Your task to perform on an android device: Search for the new Nike Air Max 270 on Nike.com Image 0: 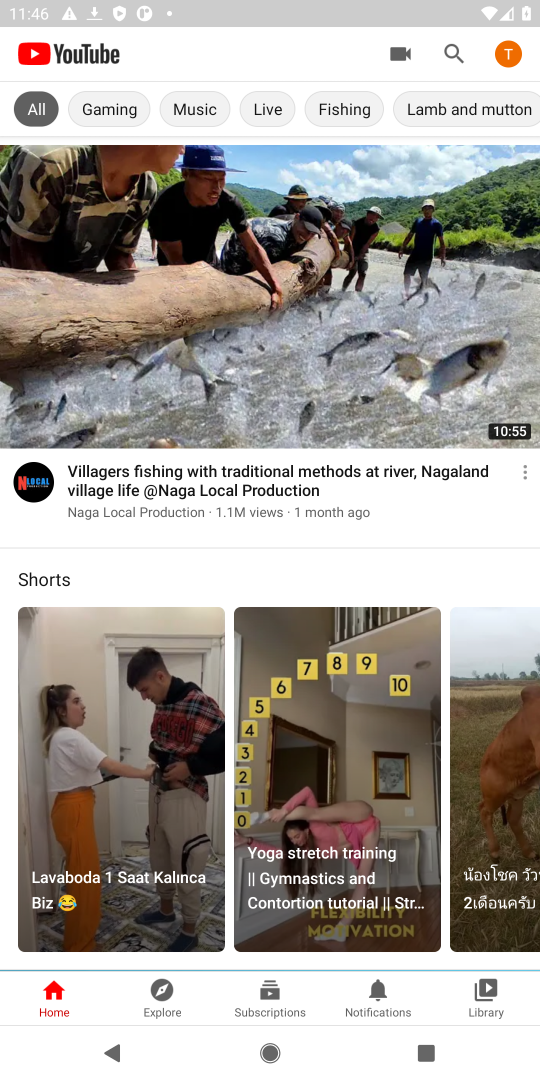
Step 0: press home button
Your task to perform on an android device: Search for the new Nike Air Max 270 on Nike.com Image 1: 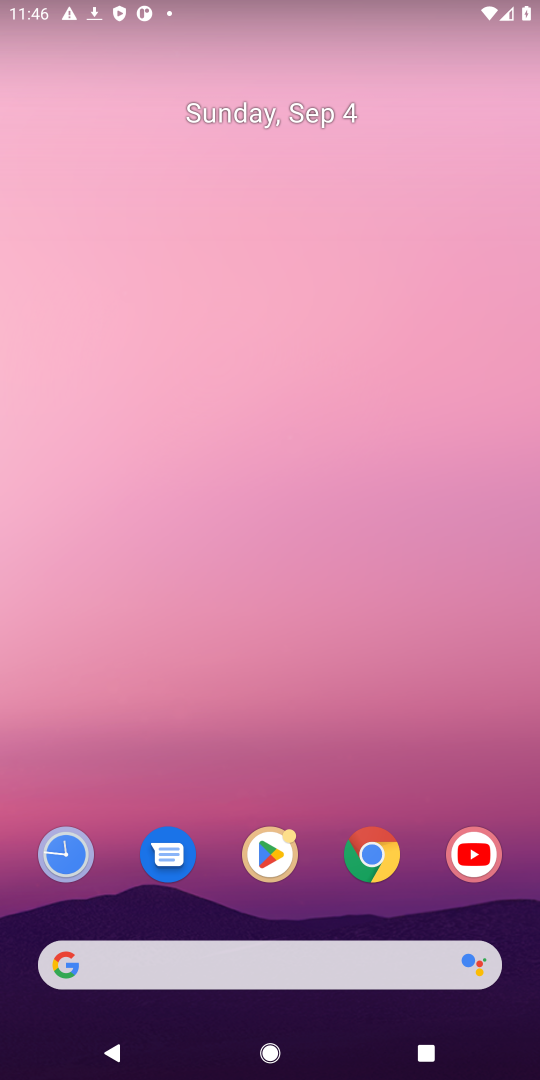
Step 1: click (240, 963)
Your task to perform on an android device: Search for the new Nike Air Max 270 on Nike.com Image 2: 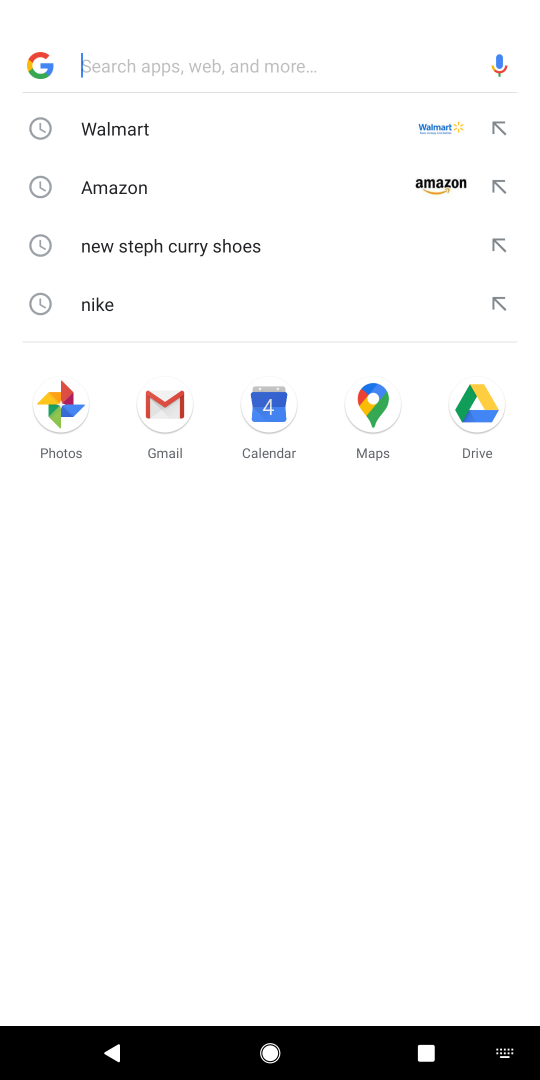
Step 2: type "nike.com"
Your task to perform on an android device: Search for the new Nike Air Max 270 on Nike.com Image 3: 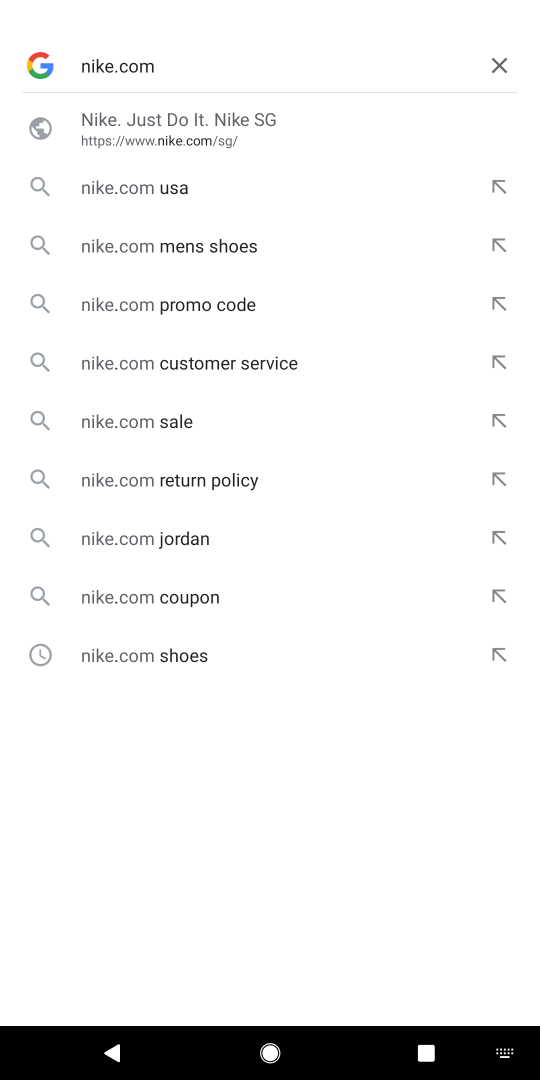
Step 3: press enter
Your task to perform on an android device: Search for the new Nike Air Max 270 on Nike.com Image 4: 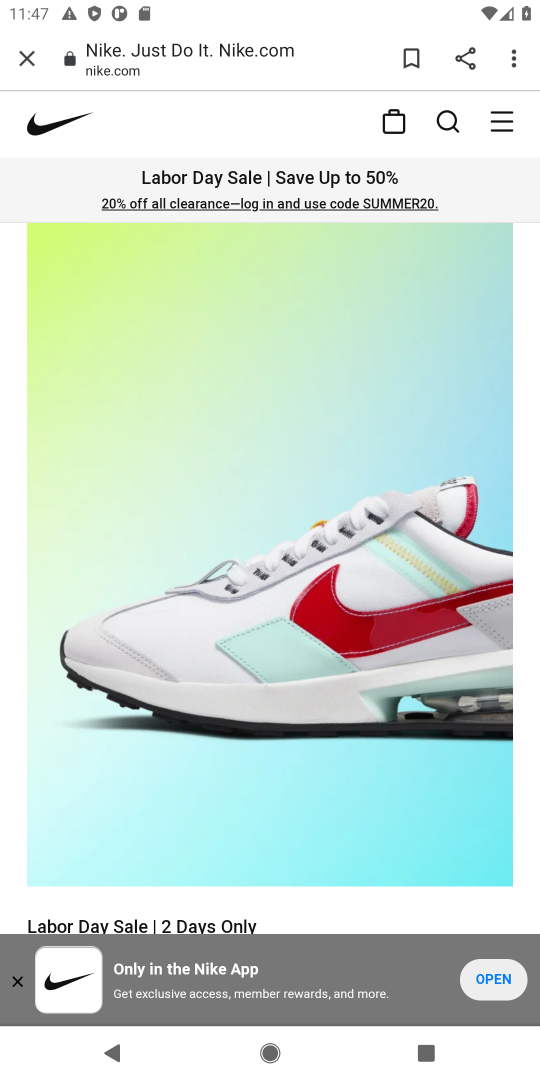
Step 4: click (454, 121)
Your task to perform on an android device: Search for the new Nike Air Max 270 on Nike.com Image 5: 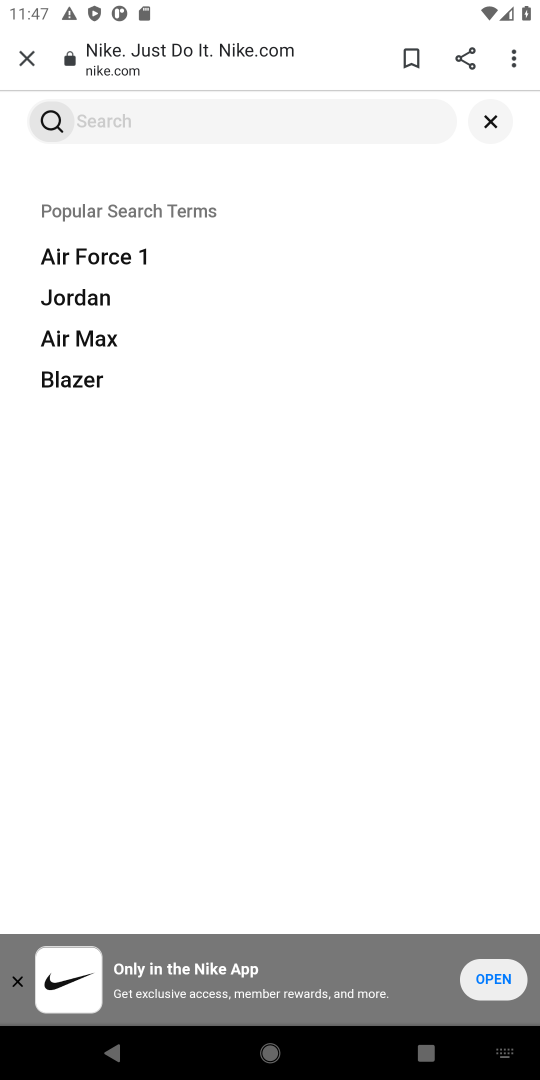
Step 5: press enter
Your task to perform on an android device: Search for the new Nike Air Max 270 on Nike.com Image 6: 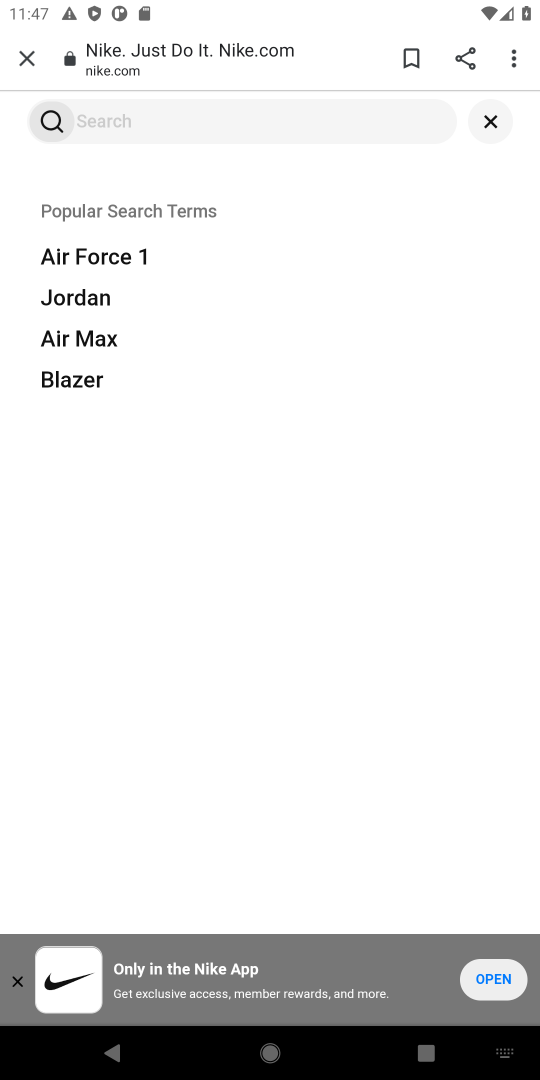
Step 6: type "new nike air max 270"
Your task to perform on an android device: Search for the new Nike Air Max 270 on Nike.com Image 7: 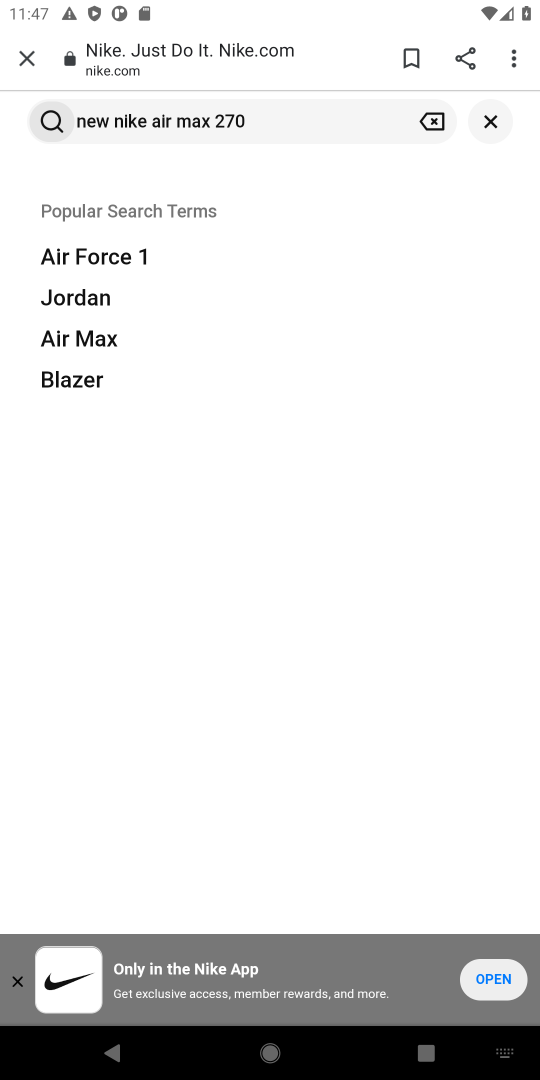
Step 7: click (46, 122)
Your task to perform on an android device: Search for the new Nike Air Max 270 on Nike.com Image 8: 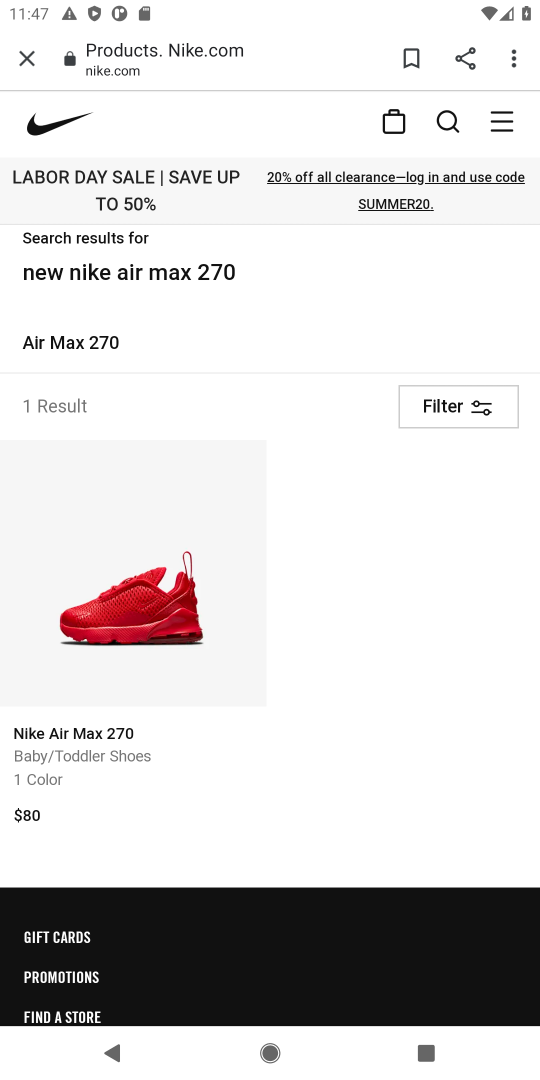
Step 8: task complete